Your task to perform on an android device: show emergency info Image 0: 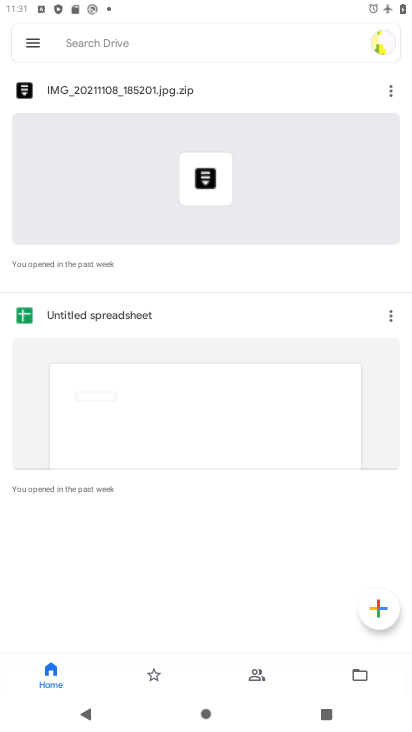
Step 0: press home button
Your task to perform on an android device: show emergency info Image 1: 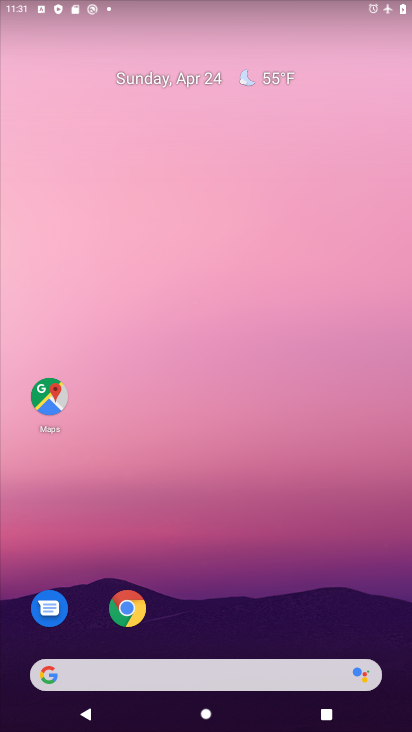
Step 1: drag from (370, 628) to (321, 49)
Your task to perform on an android device: show emergency info Image 2: 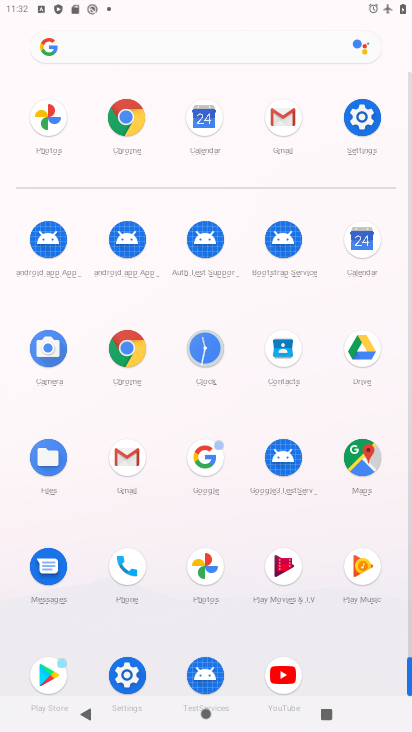
Step 2: click (124, 676)
Your task to perform on an android device: show emergency info Image 3: 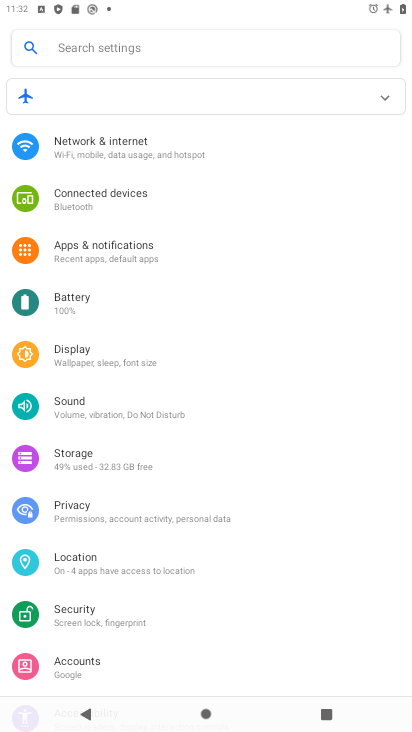
Step 3: drag from (246, 636) to (289, 287)
Your task to perform on an android device: show emergency info Image 4: 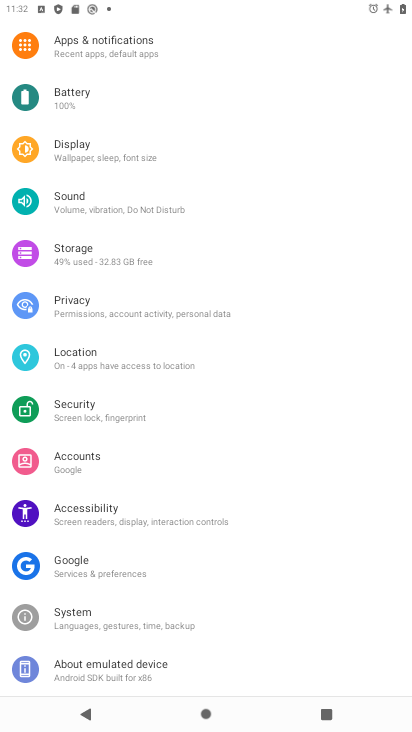
Step 4: click (78, 666)
Your task to perform on an android device: show emergency info Image 5: 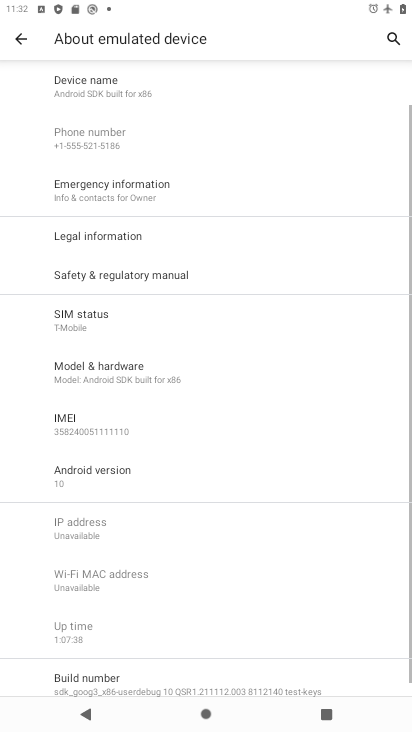
Step 5: click (94, 190)
Your task to perform on an android device: show emergency info Image 6: 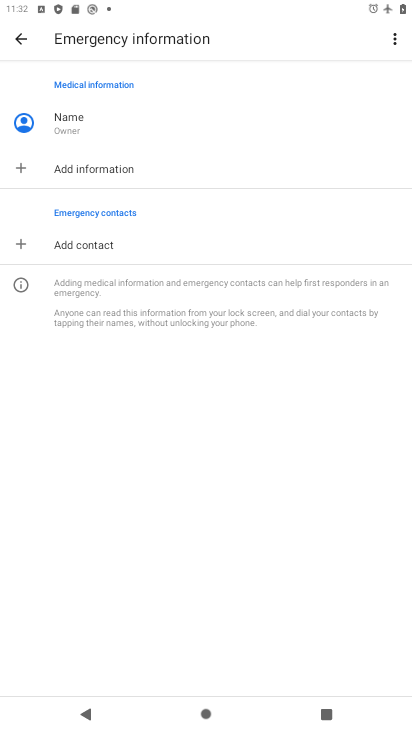
Step 6: task complete